Your task to perform on an android device: change notifications settings Image 0: 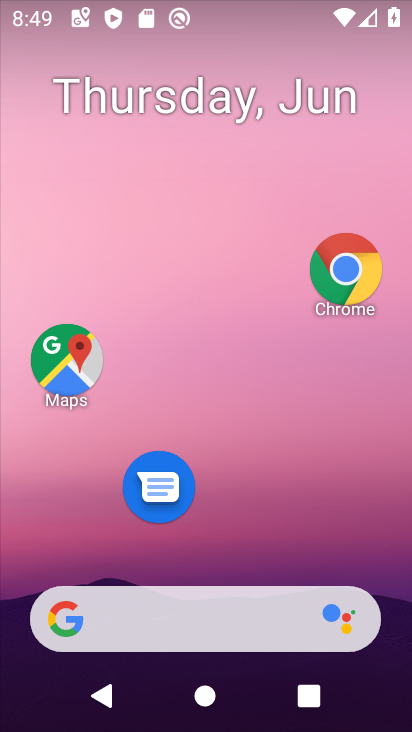
Step 0: click (295, 21)
Your task to perform on an android device: change notifications settings Image 1: 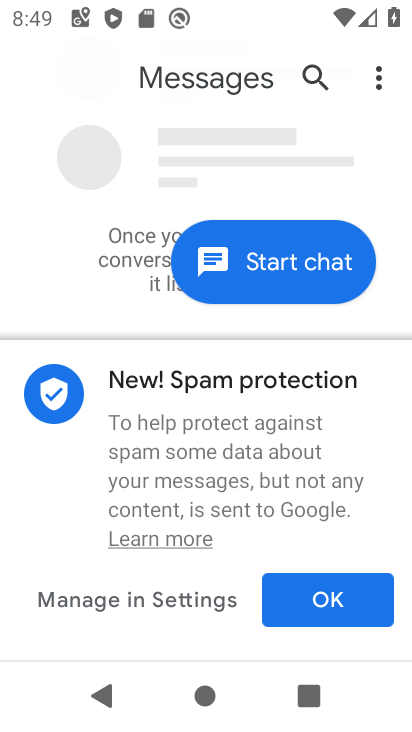
Step 1: press home button
Your task to perform on an android device: change notifications settings Image 2: 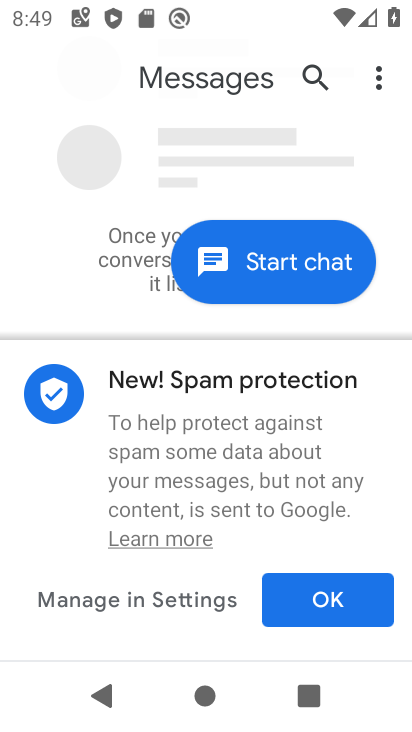
Step 2: press home button
Your task to perform on an android device: change notifications settings Image 3: 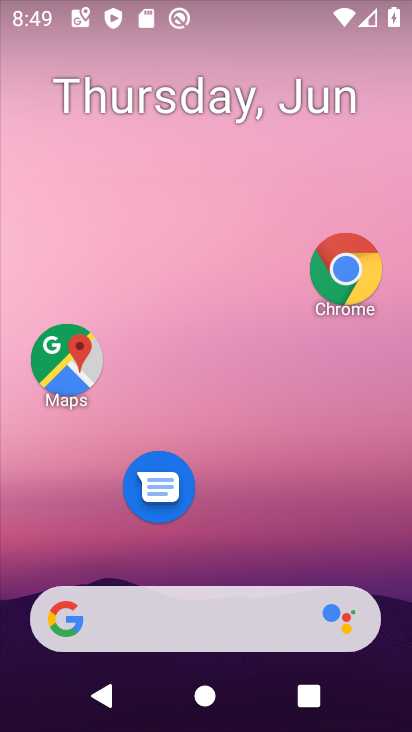
Step 3: click (255, 2)
Your task to perform on an android device: change notifications settings Image 4: 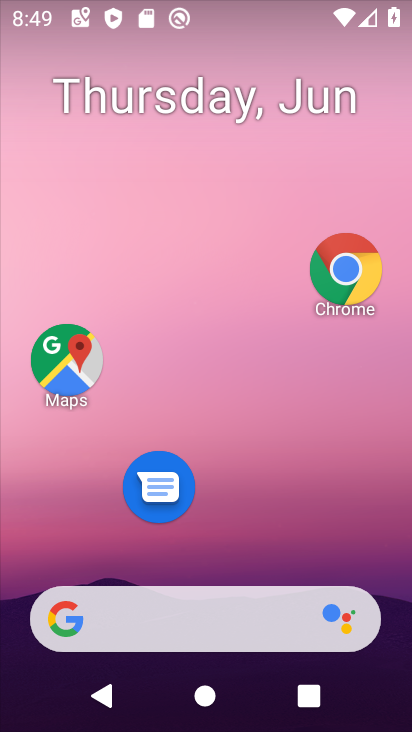
Step 4: drag from (207, 571) to (219, 64)
Your task to perform on an android device: change notifications settings Image 5: 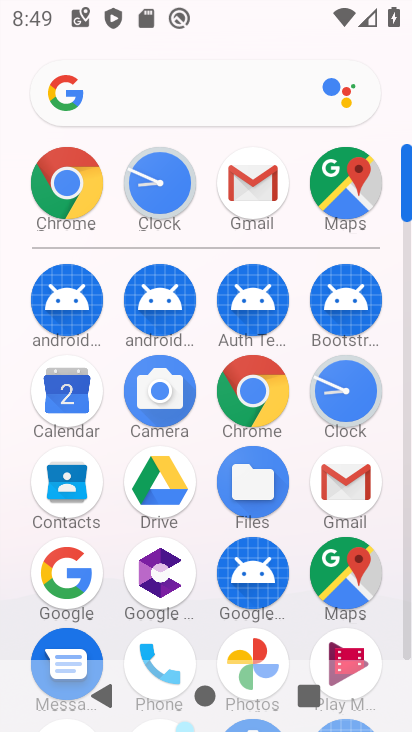
Step 5: drag from (188, 631) to (205, 285)
Your task to perform on an android device: change notifications settings Image 6: 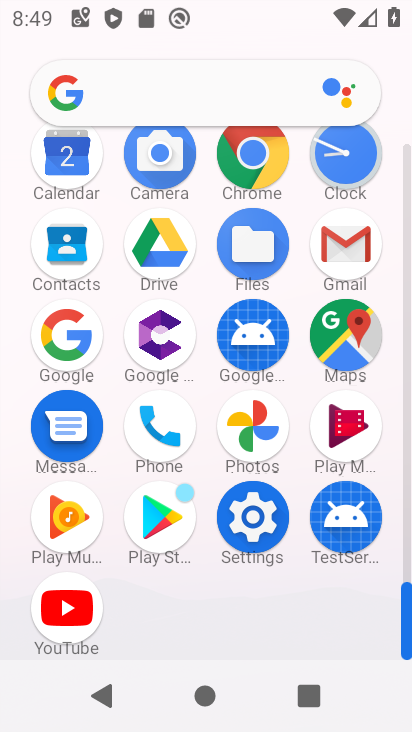
Step 6: click (234, 505)
Your task to perform on an android device: change notifications settings Image 7: 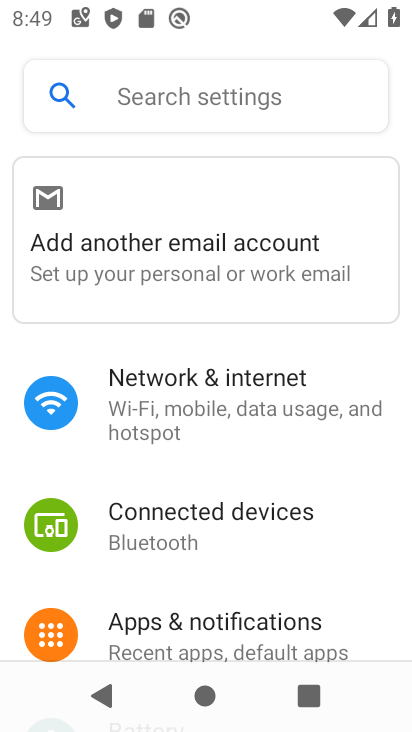
Step 7: drag from (208, 597) to (222, 286)
Your task to perform on an android device: change notifications settings Image 8: 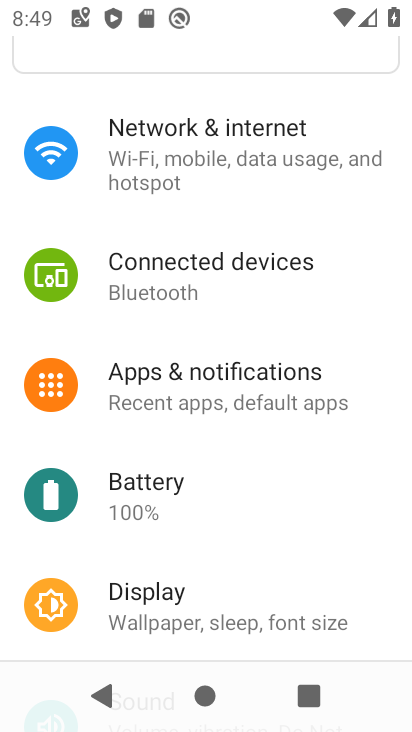
Step 8: drag from (181, 612) to (225, 237)
Your task to perform on an android device: change notifications settings Image 9: 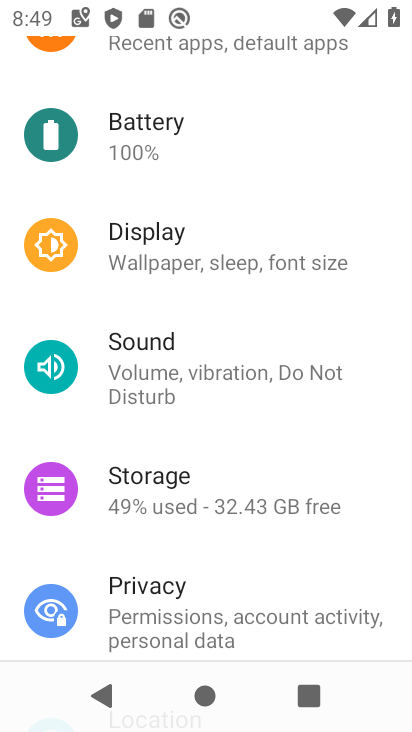
Step 9: drag from (251, 259) to (292, 730)
Your task to perform on an android device: change notifications settings Image 10: 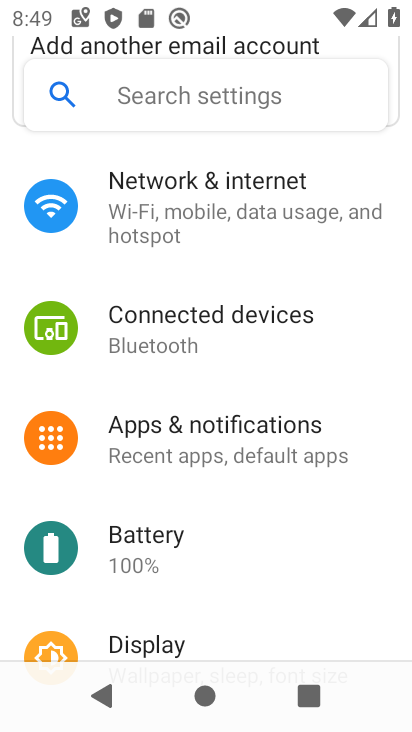
Step 10: click (241, 456)
Your task to perform on an android device: change notifications settings Image 11: 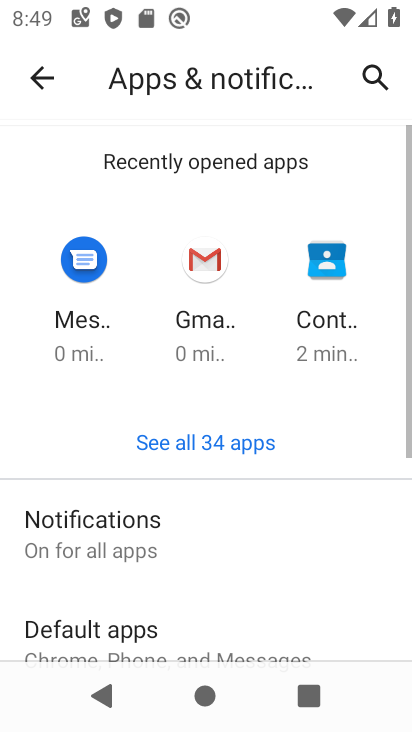
Step 11: click (153, 512)
Your task to perform on an android device: change notifications settings Image 12: 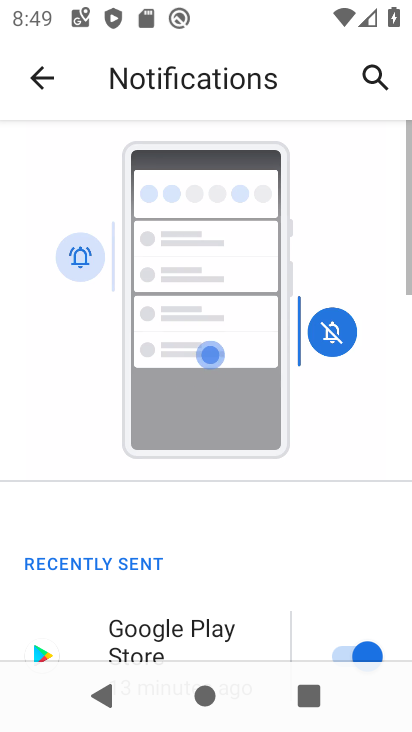
Step 12: drag from (209, 568) to (393, 123)
Your task to perform on an android device: change notifications settings Image 13: 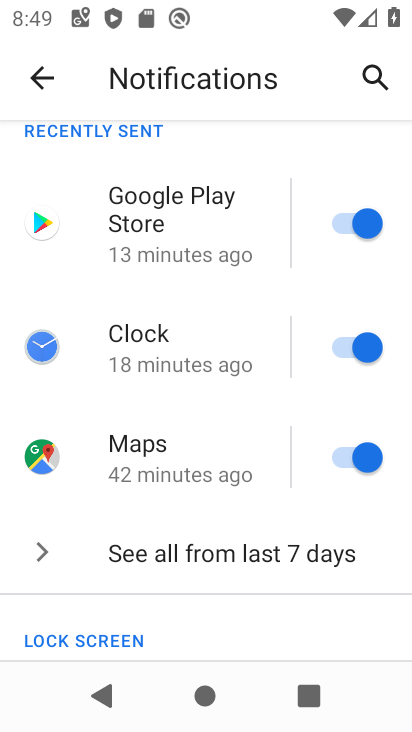
Step 13: drag from (201, 554) to (238, 332)
Your task to perform on an android device: change notifications settings Image 14: 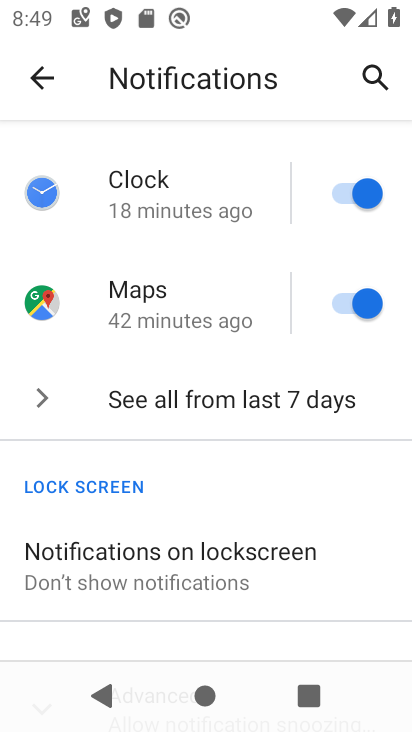
Step 14: drag from (223, 547) to (240, 174)
Your task to perform on an android device: change notifications settings Image 15: 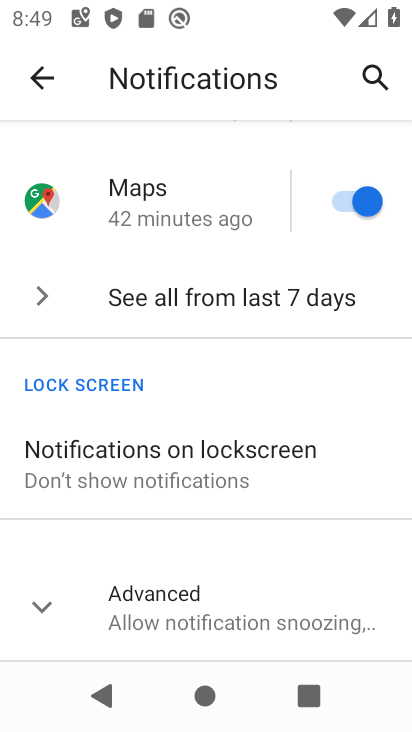
Step 15: drag from (210, 575) to (260, 251)
Your task to perform on an android device: change notifications settings Image 16: 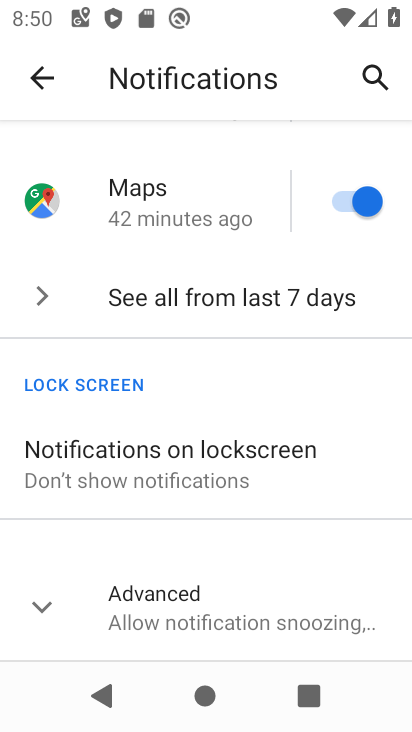
Step 16: click (170, 586)
Your task to perform on an android device: change notifications settings Image 17: 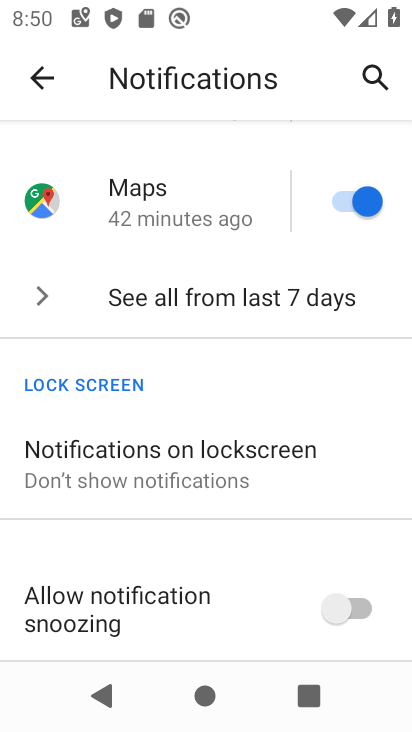
Step 17: click (344, 586)
Your task to perform on an android device: change notifications settings Image 18: 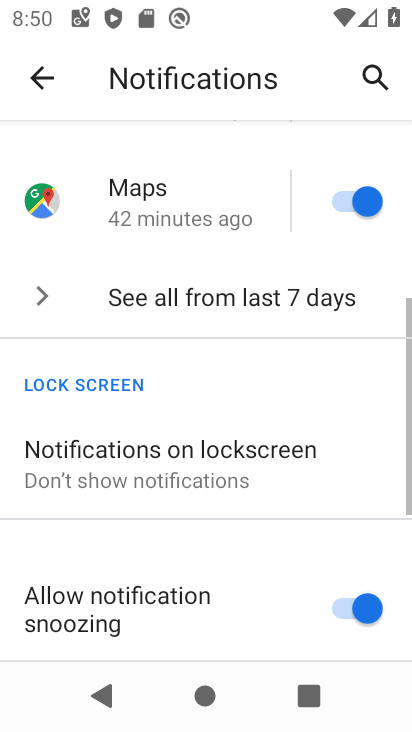
Step 18: task complete